Your task to perform on an android device: Go to Google maps Image 0: 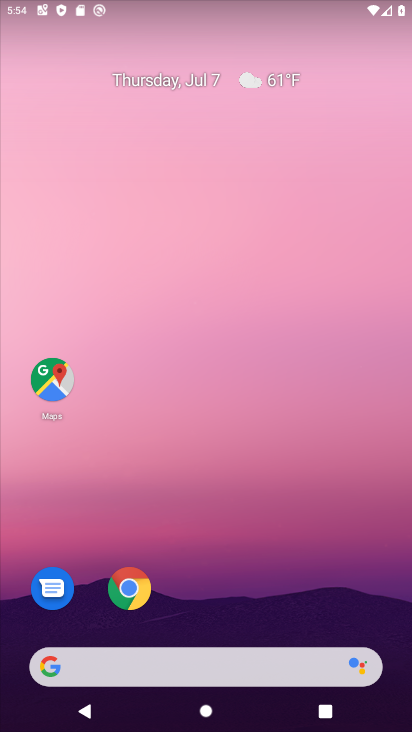
Step 0: click (58, 372)
Your task to perform on an android device: Go to Google maps Image 1: 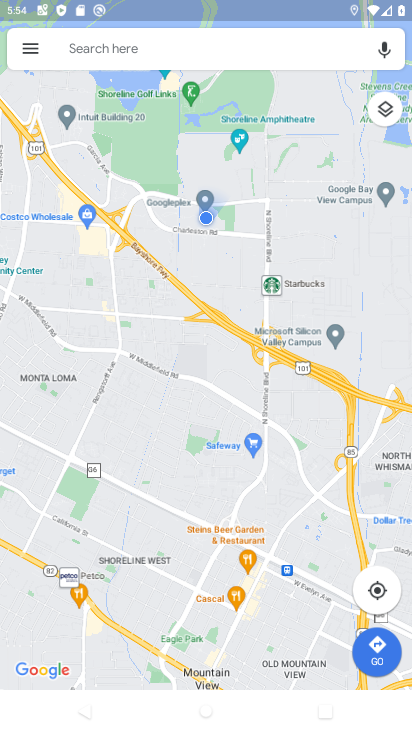
Step 1: task complete